Your task to perform on an android device: Open Maps and search for coffee Image 0: 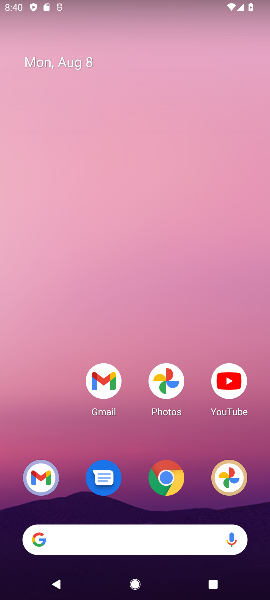
Step 0: press home button
Your task to perform on an android device: Open Maps and search for coffee Image 1: 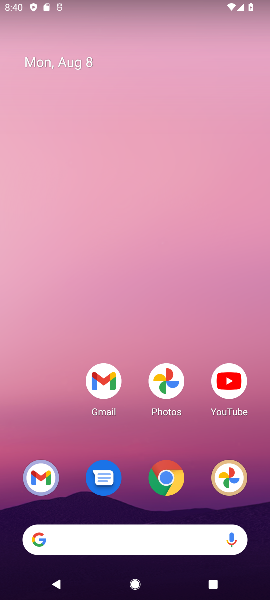
Step 1: drag from (133, 543) to (247, 79)
Your task to perform on an android device: Open Maps and search for coffee Image 2: 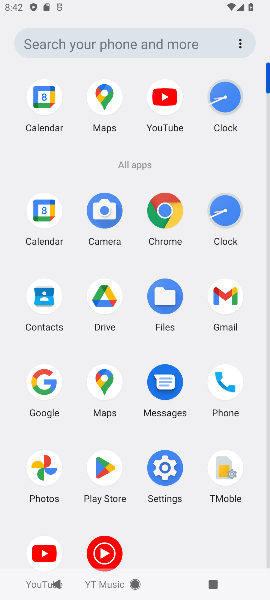
Step 2: click (107, 381)
Your task to perform on an android device: Open Maps and search for coffee Image 3: 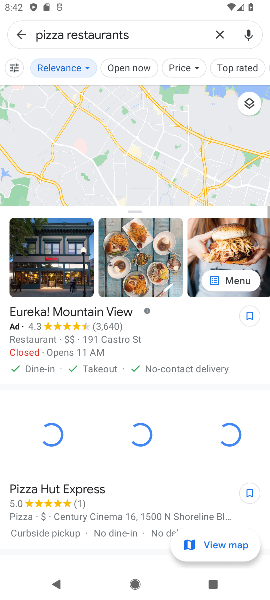
Step 3: click (213, 31)
Your task to perform on an android device: Open Maps and search for coffee Image 4: 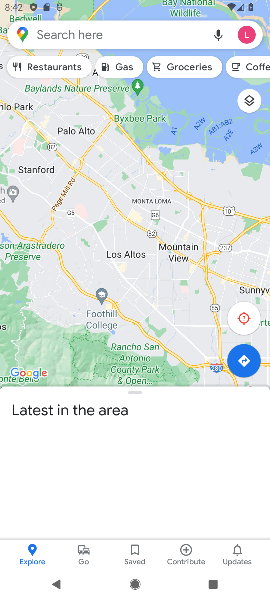
Step 4: click (85, 34)
Your task to perform on an android device: Open Maps and search for coffee Image 5: 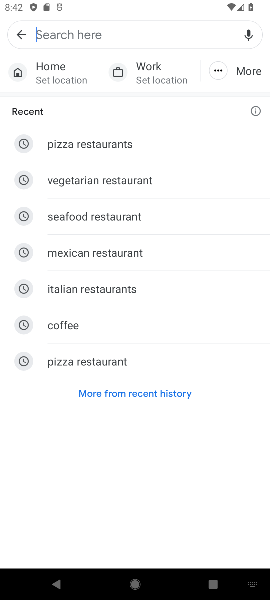
Step 5: click (72, 327)
Your task to perform on an android device: Open Maps and search for coffee Image 6: 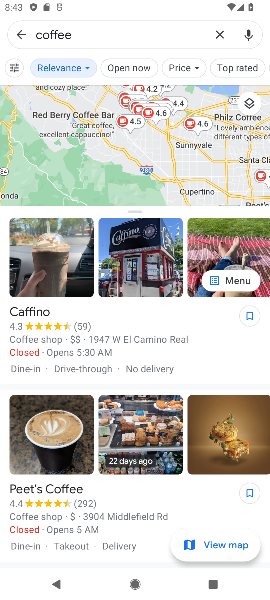
Step 6: task complete